Your task to perform on an android device: Open calendar and show me the fourth week of next month Image 0: 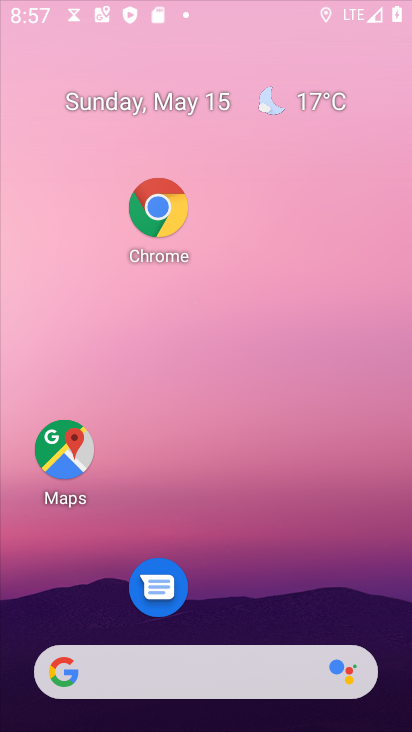
Step 0: drag from (375, 616) to (258, 172)
Your task to perform on an android device: Open calendar and show me the fourth week of next month Image 1: 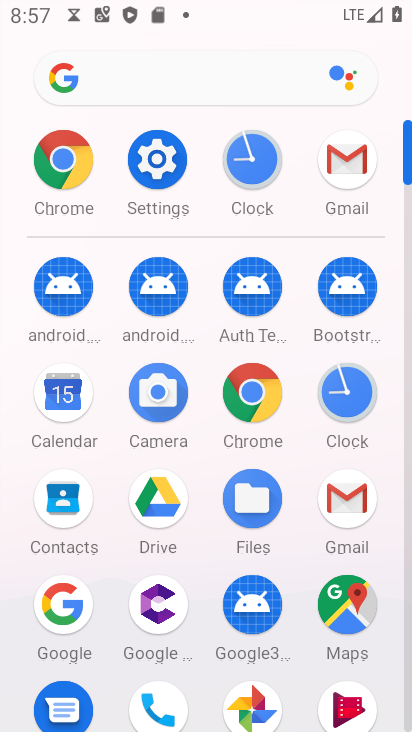
Step 1: click (77, 392)
Your task to perform on an android device: Open calendar and show me the fourth week of next month Image 2: 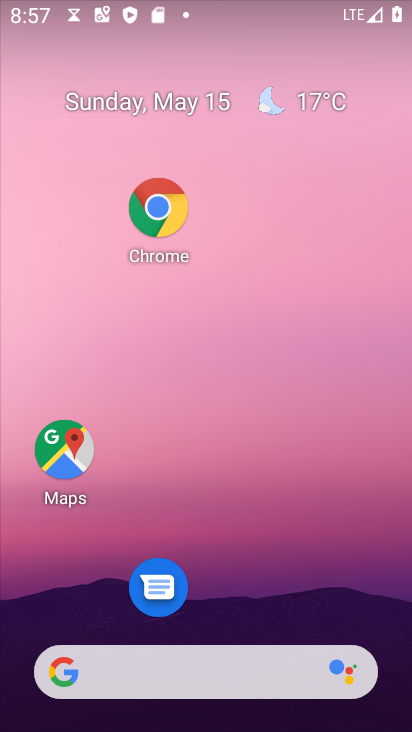
Step 2: drag from (243, 581) to (183, 82)
Your task to perform on an android device: Open calendar and show me the fourth week of next month Image 3: 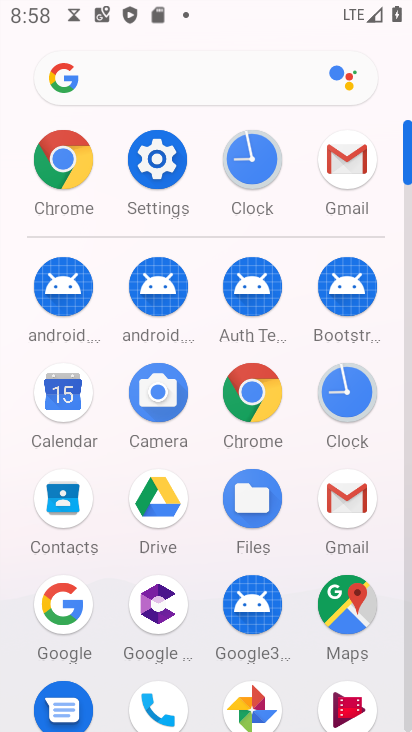
Step 3: click (67, 386)
Your task to perform on an android device: Open calendar and show me the fourth week of next month Image 4: 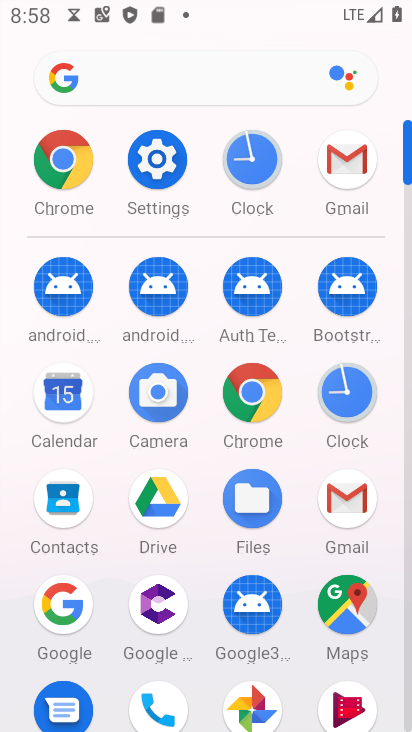
Step 4: click (67, 386)
Your task to perform on an android device: Open calendar and show me the fourth week of next month Image 5: 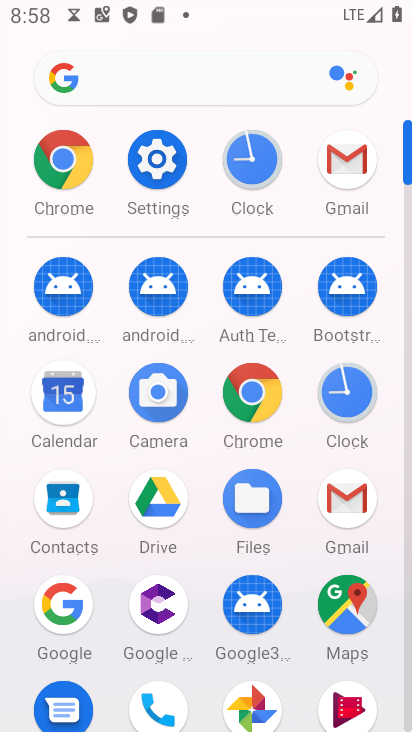
Step 5: click (67, 386)
Your task to perform on an android device: Open calendar and show me the fourth week of next month Image 6: 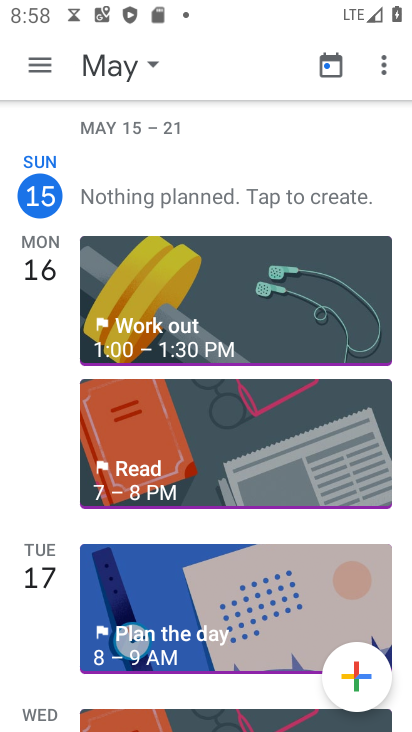
Step 6: click (147, 58)
Your task to perform on an android device: Open calendar and show me the fourth week of next month Image 7: 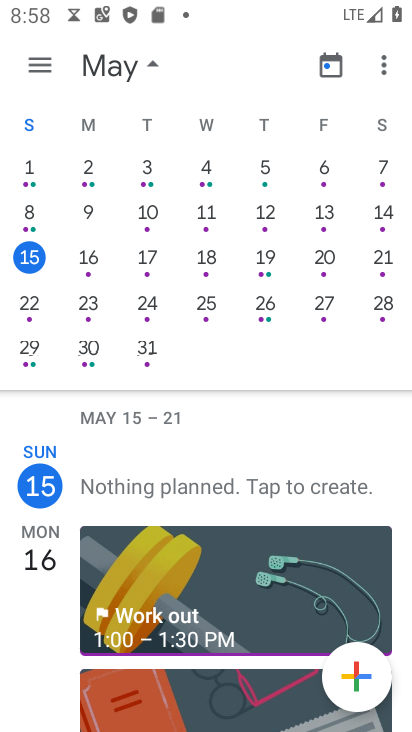
Step 7: drag from (334, 225) to (15, 244)
Your task to perform on an android device: Open calendar and show me the fourth week of next month Image 8: 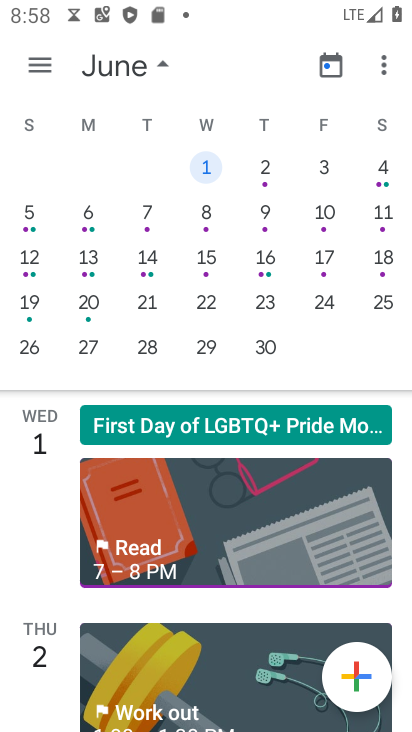
Step 8: click (205, 303)
Your task to perform on an android device: Open calendar and show me the fourth week of next month Image 9: 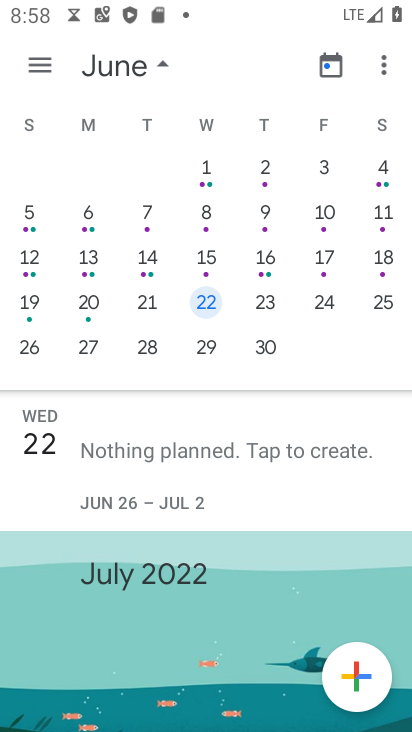
Step 9: click (206, 302)
Your task to perform on an android device: Open calendar and show me the fourth week of next month Image 10: 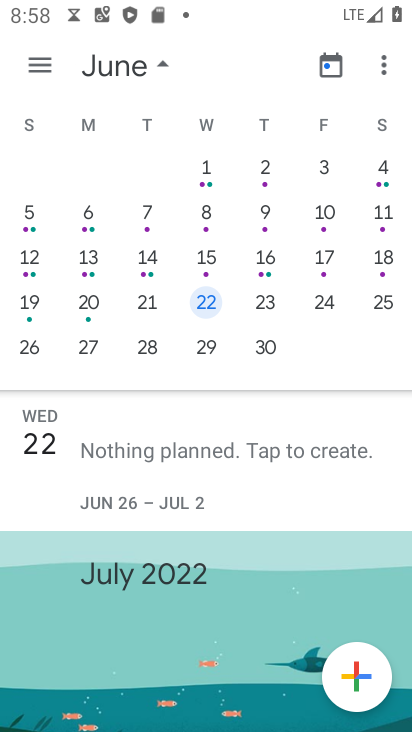
Step 10: click (206, 302)
Your task to perform on an android device: Open calendar and show me the fourth week of next month Image 11: 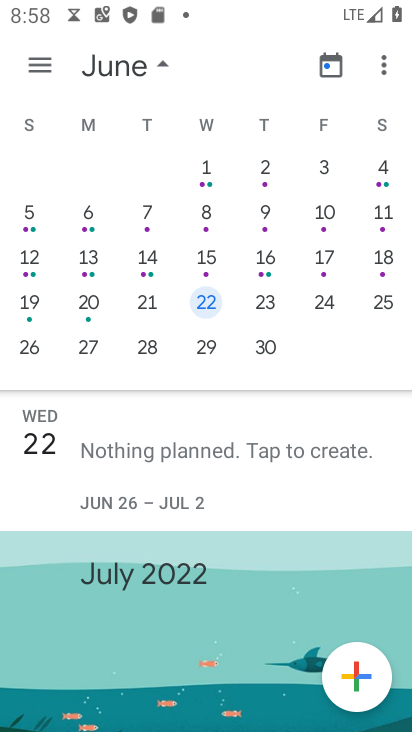
Step 11: task complete